Your task to perform on an android device: How big is the sun? Image 0: 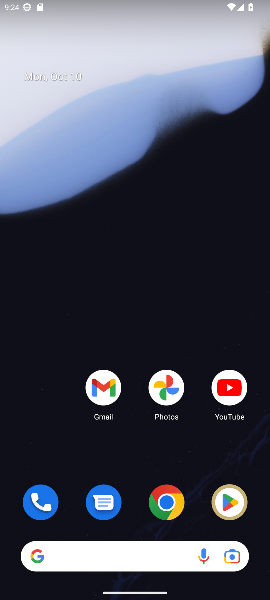
Step 0: click (170, 505)
Your task to perform on an android device: How big is the sun? Image 1: 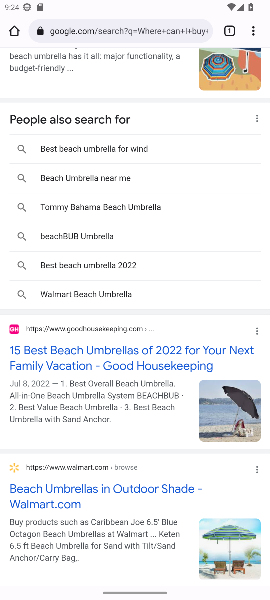
Step 1: click (98, 35)
Your task to perform on an android device: How big is the sun? Image 2: 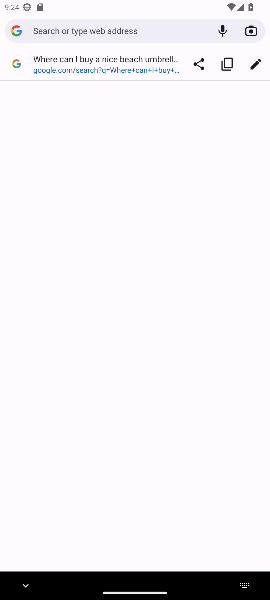
Step 2: type "How big is the sun?"
Your task to perform on an android device: How big is the sun? Image 3: 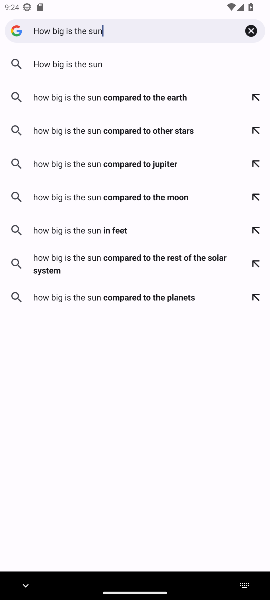
Step 3: type ""
Your task to perform on an android device: How big is the sun? Image 4: 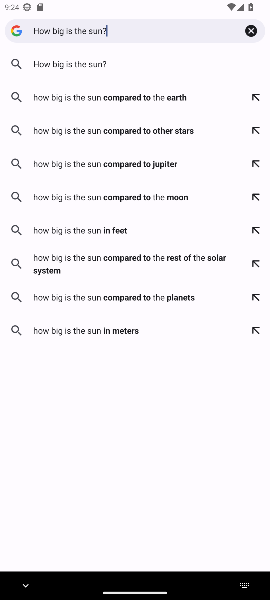
Step 4: press enter
Your task to perform on an android device: How big is the sun? Image 5: 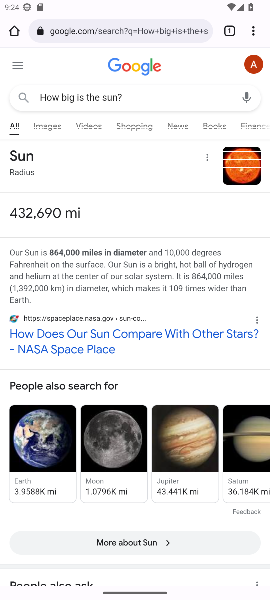
Step 5: click (94, 340)
Your task to perform on an android device: How big is the sun? Image 6: 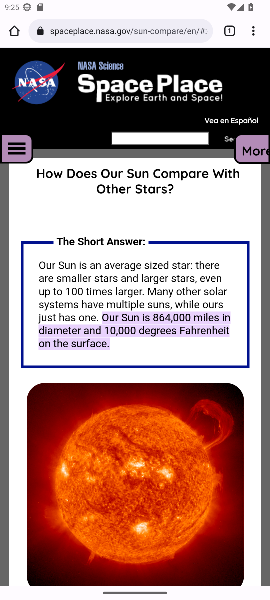
Step 6: drag from (95, 340) to (85, 185)
Your task to perform on an android device: How big is the sun? Image 7: 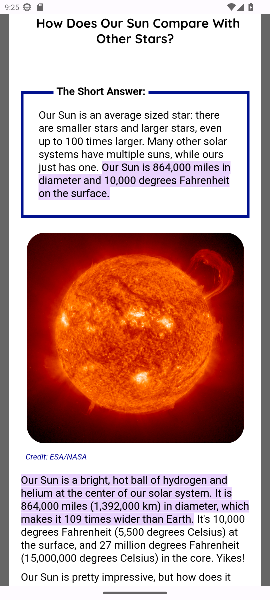
Step 7: drag from (116, 436) to (142, 90)
Your task to perform on an android device: How big is the sun? Image 8: 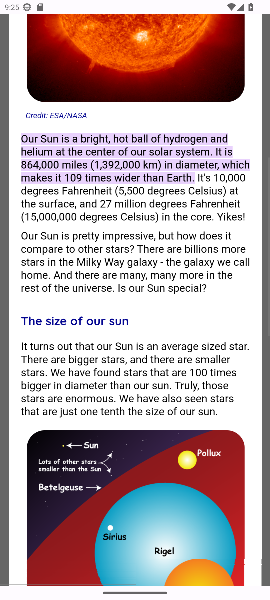
Step 8: drag from (153, 422) to (151, 146)
Your task to perform on an android device: How big is the sun? Image 9: 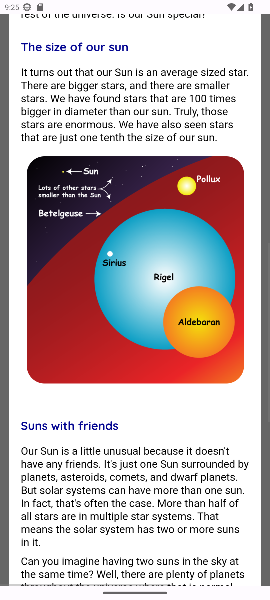
Step 9: drag from (186, 458) to (167, 171)
Your task to perform on an android device: How big is the sun? Image 10: 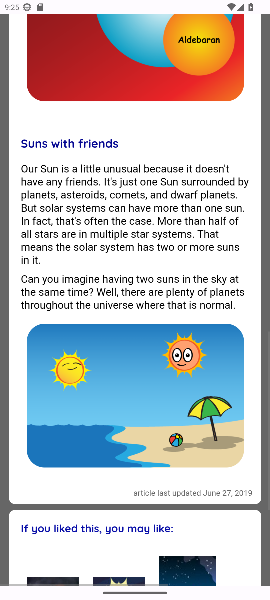
Step 10: drag from (149, 431) to (156, 163)
Your task to perform on an android device: How big is the sun? Image 11: 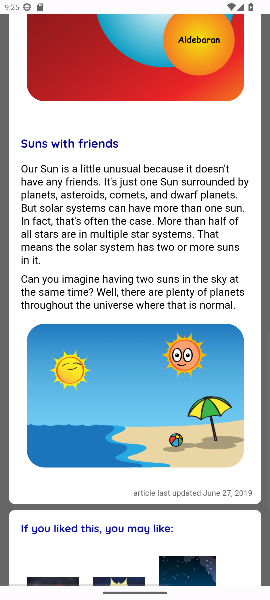
Step 11: drag from (148, 184) to (156, 218)
Your task to perform on an android device: How big is the sun? Image 12: 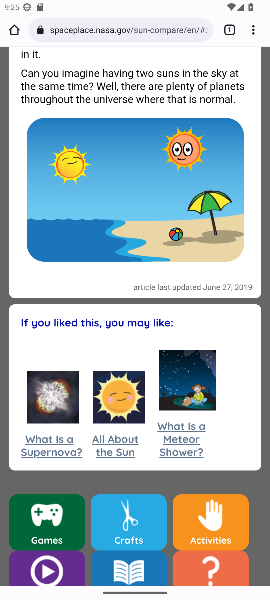
Step 12: drag from (144, 396) to (150, 242)
Your task to perform on an android device: How big is the sun? Image 13: 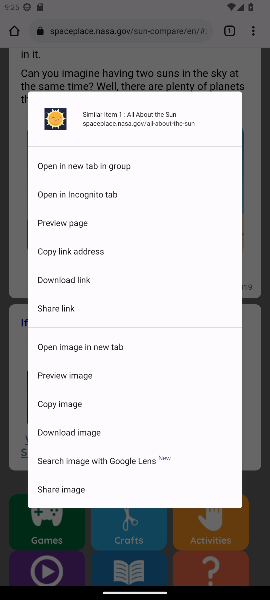
Step 13: drag from (165, 396) to (163, 262)
Your task to perform on an android device: How big is the sun? Image 14: 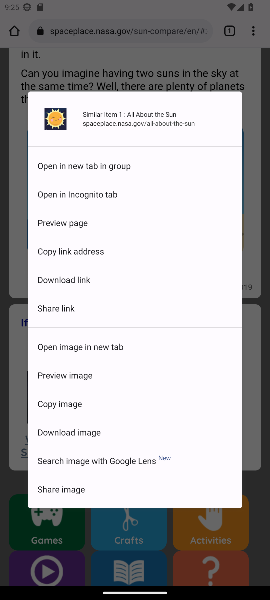
Step 14: click (163, 265)
Your task to perform on an android device: How big is the sun? Image 15: 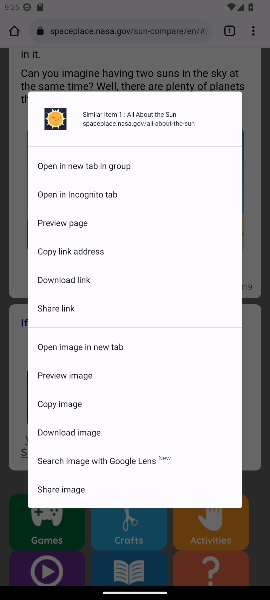
Step 15: drag from (162, 397) to (183, 259)
Your task to perform on an android device: How big is the sun? Image 16: 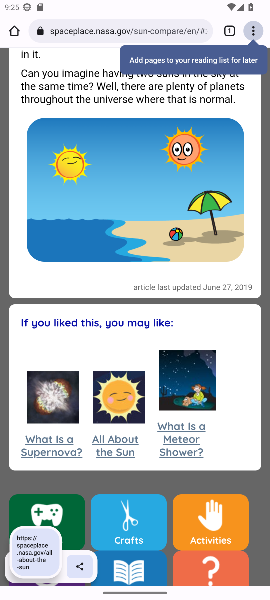
Step 16: drag from (202, 466) to (209, 249)
Your task to perform on an android device: How big is the sun? Image 17: 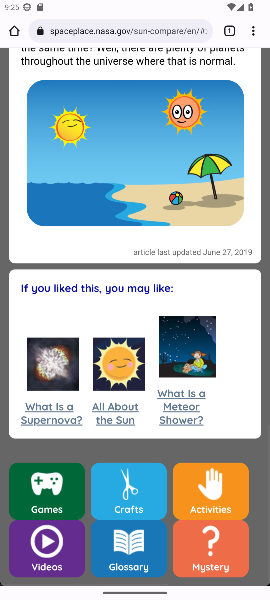
Step 17: drag from (198, 466) to (225, 269)
Your task to perform on an android device: How big is the sun? Image 18: 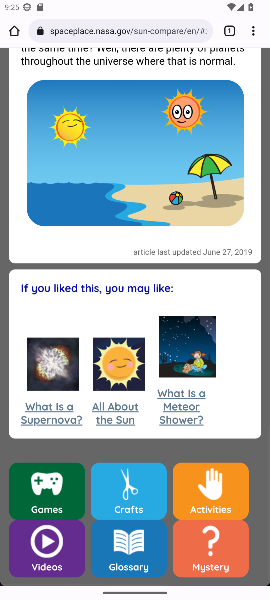
Step 18: drag from (233, 448) to (246, 304)
Your task to perform on an android device: How big is the sun? Image 19: 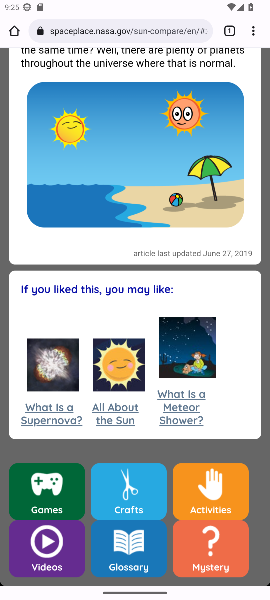
Step 19: drag from (235, 466) to (263, 293)
Your task to perform on an android device: How big is the sun? Image 20: 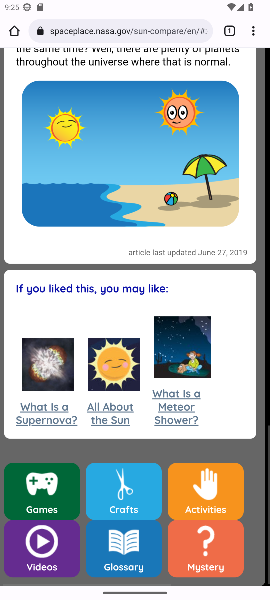
Step 20: drag from (157, 505) to (180, 310)
Your task to perform on an android device: How big is the sun? Image 21: 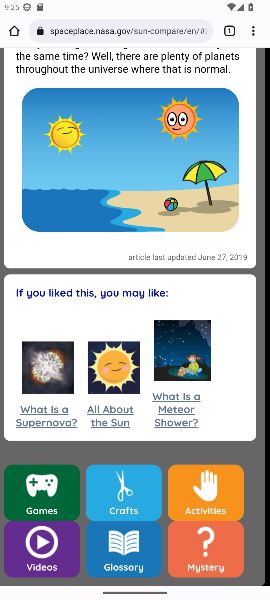
Step 21: drag from (193, 270) to (174, 411)
Your task to perform on an android device: How big is the sun? Image 22: 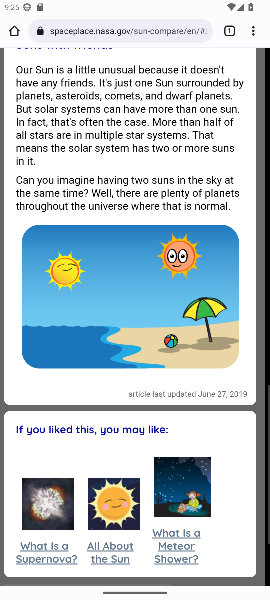
Step 22: drag from (188, 265) to (172, 424)
Your task to perform on an android device: How big is the sun? Image 23: 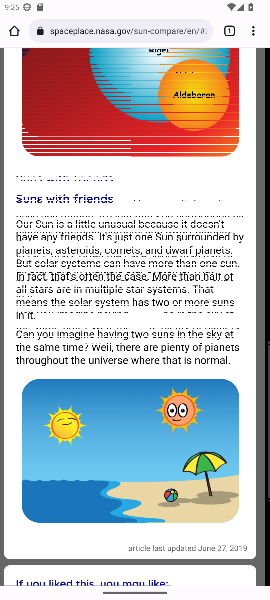
Step 23: drag from (186, 258) to (151, 444)
Your task to perform on an android device: How big is the sun? Image 24: 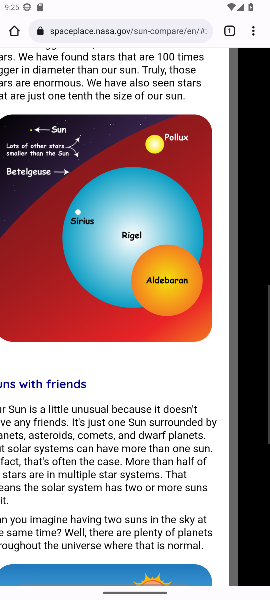
Step 24: drag from (170, 246) to (114, 486)
Your task to perform on an android device: How big is the sun? Image 25: 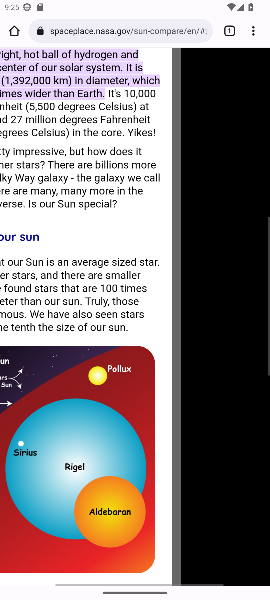
Step 25: drag from (115, 300) to (113, 529)
Your task to perform on an android device: How big is the sun? Image 26: 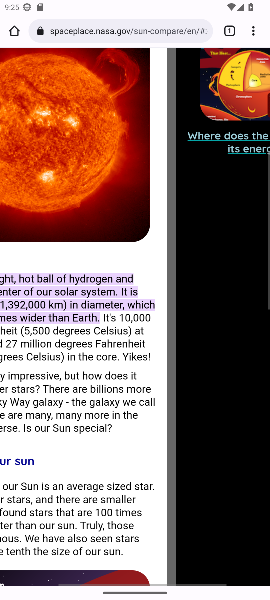
Step 26: drag from (153, 332) to (148, 497)
Your task to perform on an android device: How big is the sun? Image 27: 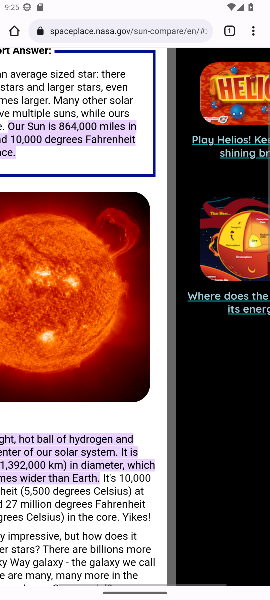
Step 27: drag from (188, 343) to (173, 510)
Your task to perform on an android device: How big is the sun? Image 28: 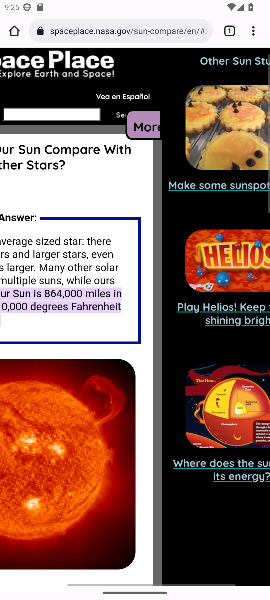
Step 28: drag from (197, 354) to (199, 511)
Your task to perform on an android device: How big is the sun? Image 29: 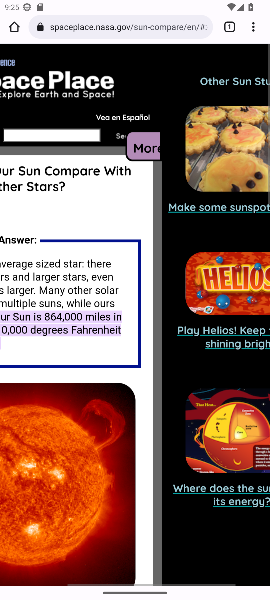
Step 29: drag from (170, 439) to (158, 506)
Your task to perform on an android device: How big is the sun? Image 30: 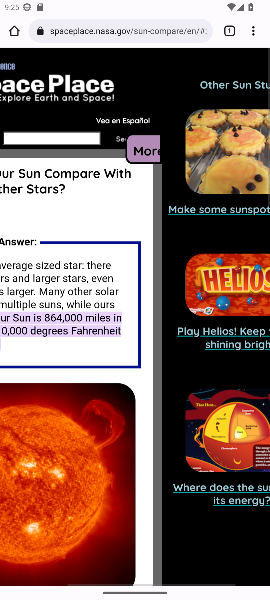
Step 30: drag from (85, 377) to (267, 368)
Your task to perform on an android device: How big is the sun? Image 31: 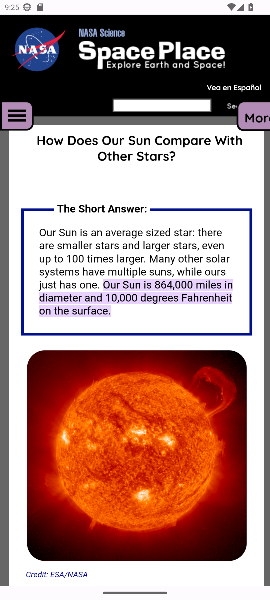
Step 31: drag from (119, 183) to (193, 147)
Your task to perform on an android device: How big is the sun? Image 32: 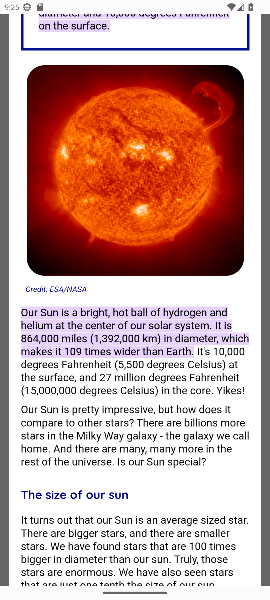
Step 32: drag from (184, 360) to (214, 170)
Your task to perform on an android device: How big is the sun? Image 33: 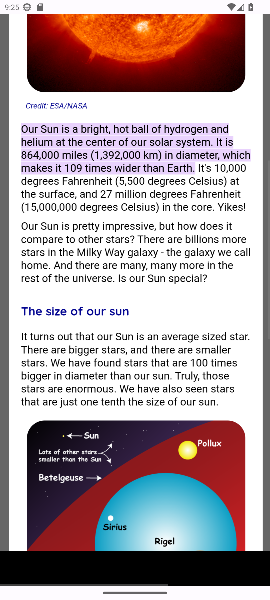
Step 33: drag from (147, 436) to (179, 212)
Your task to perform on an android device: How big is the sun? Image 34: 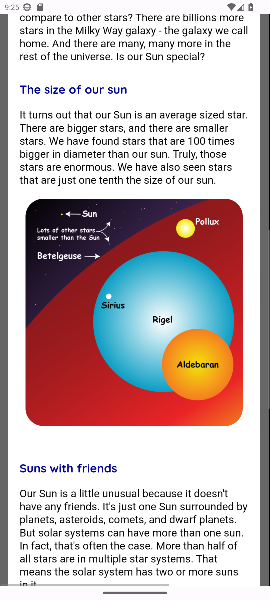
Step 34: drag from (140, 480) to (164, 256)
Your task to perform on an android device: How big is the sun? Image 35: 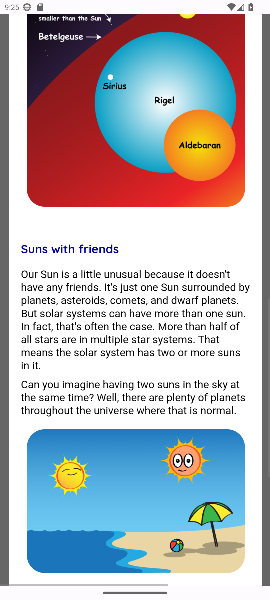
Step 35: drag from (146, 498) to (173, 297)
Your task to perform on an android device: How big is the sun? Image 36: 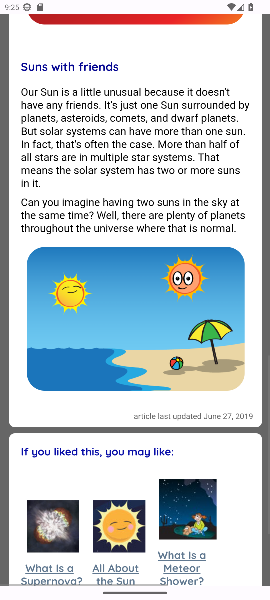
Step 36: drag from (141, 500) to (163, 321)
Your task to perform on an android device: How big is the sun? Image 37: 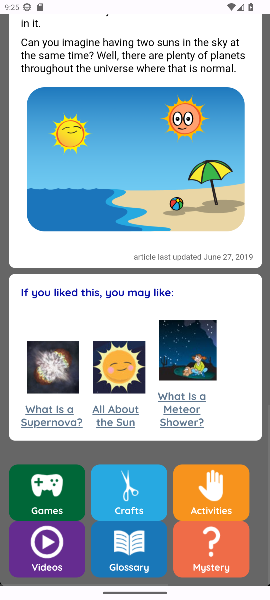
Step 37: drag from (122, 474) to (149, 317)
Your task to perform on an android device: How big is the sun? Image 38: 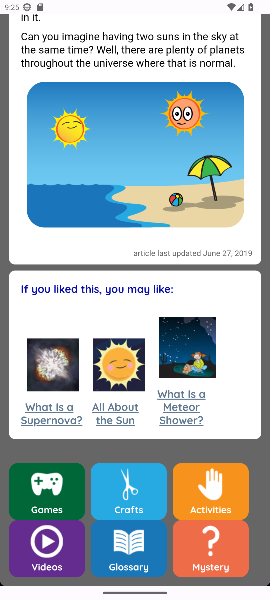
Step 38: drag from (134, 486) to (161, 368)
Your task to perform on an android device: How big is the sun? Image 39: 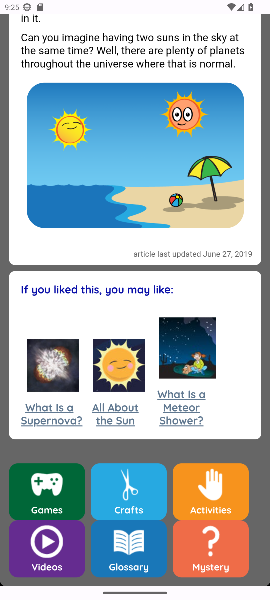
Step 39: drag from (125, 556) to (149, 385)
Your task to perform on an android device: How big is the sun? Image 40: 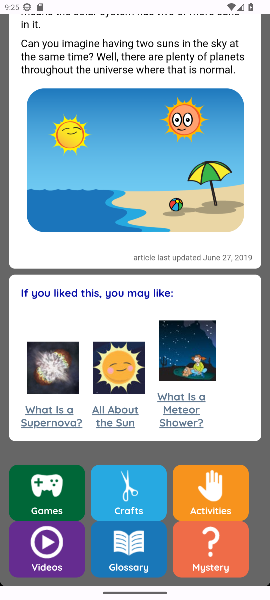
Step 40: drag from (84, 581) to (125, 431)
Your task to perform on an android device: How big is the sun? Image 41: 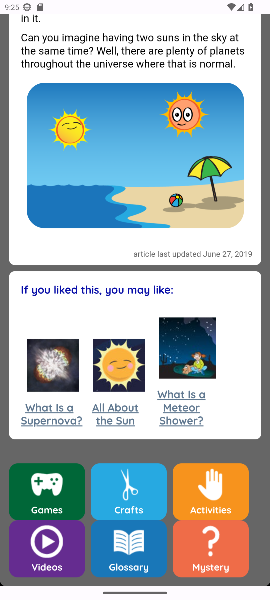
Step 41: drag from (121, 415) to (123, 274)
Your task to perform on an android device: How big is the sun? Image 42: 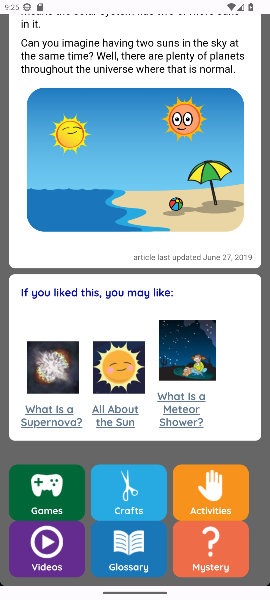
Step 42: press back button
Your task to perform on an android device: How big is the sun? Image 43: 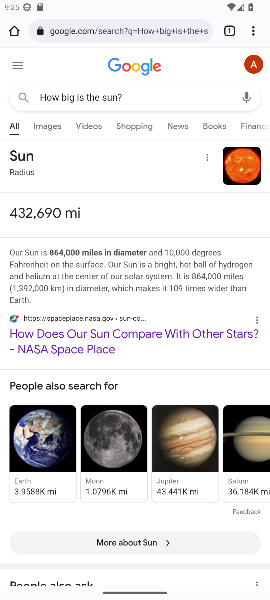
Step 43: drag from (121, 519) to (127, 49)
Your task to perform on an android device: How big is the sun? Image 44: 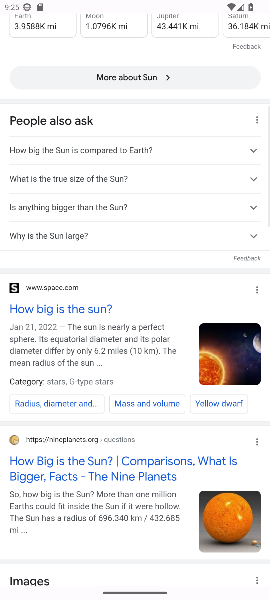
Step 44: drag from (110, 554) to (123, 107)
Your task to perform on an android device: How big is the sun? Image 45: 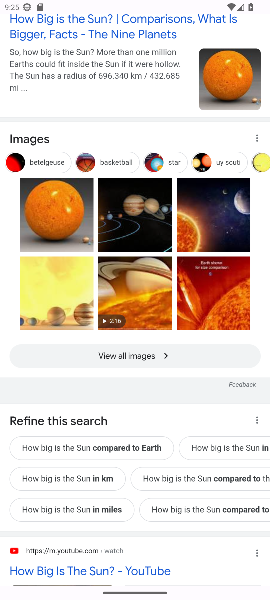
Step 45: click (77, 22)
Your task to perform on an android device: How big is the sun? Image 46: 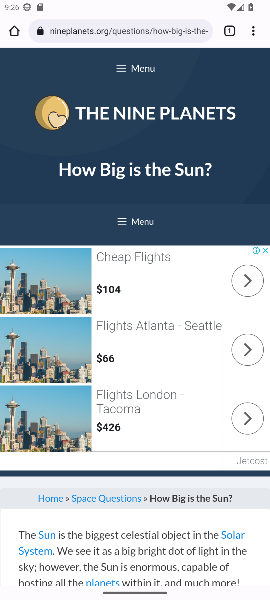
Step 46: drag from (108, 442) to (136, 101)
Your task to perform on an android device: How big is the sun? Image 47: 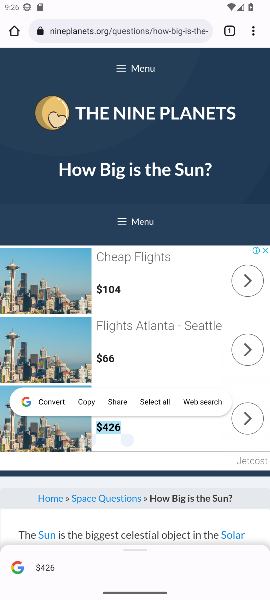
Step 47: drag from (162, 456) to (141, 189)
Your task to perform on an android device: How big is the sun? Image 48: 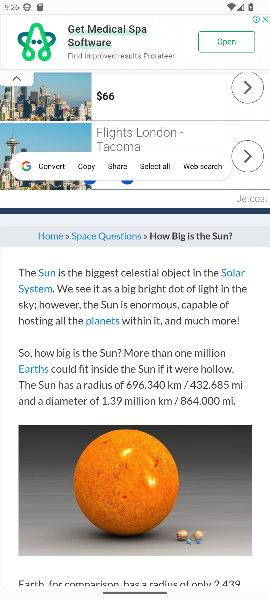
Step 48: drag from (168, 534) to (147, 217)
Your task to perform on an android device: How big is the sun? Image 49: 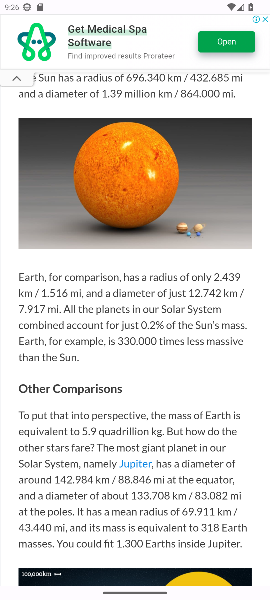
Step 49: drag from (92, 510) to (97, 143)
Your task to perform on an android device: How big is the sun? Image 50: 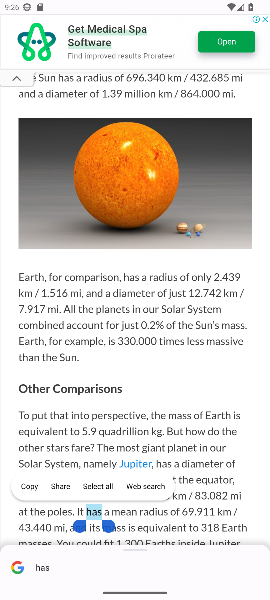
Step 50: drag from (169, 393) to (148, 139)
Your task to perform on an android device: How big is the sun? Image 51: 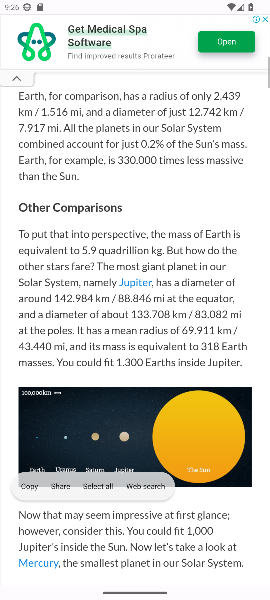
Step 51: drag from (194, 456) to (175, 156)
Your task to perform on an android device: How big is the sun? Image 52: 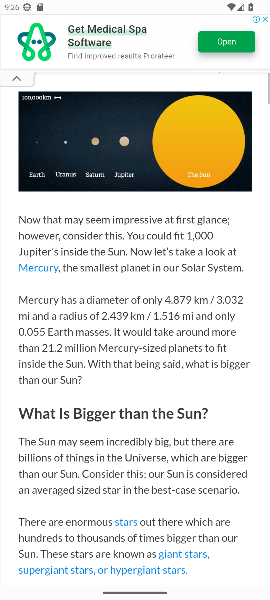
Step 52: drag from (185, 409) to (145, 127)
Your task to perform on an android device: How big is the sun? Image 53: 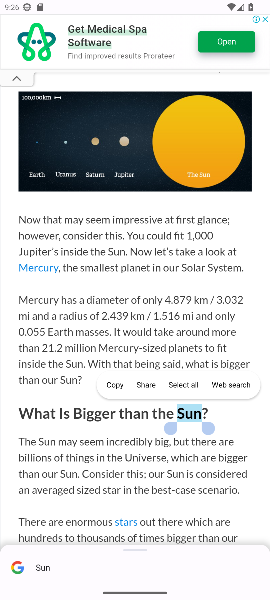
Step 53: drag from (153, 422) to (164, 171)
Your task to perform on an android device: How big is the sun? Image 54: 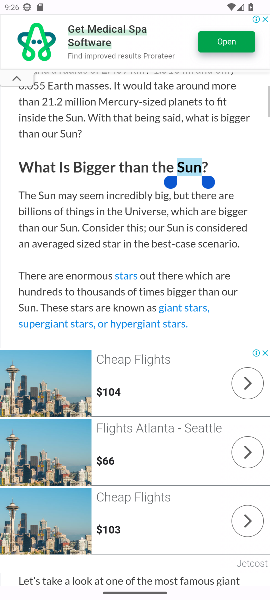
Step 54: drag from (156, 422) to (168, 229)
Your task to perform on an android device: How big is the sun? Image 55: 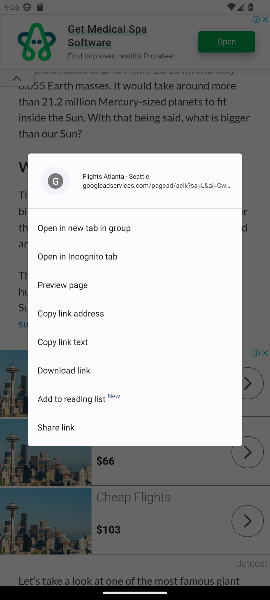
Step 55: click (175, 78)
Your task to perform on an android device: How big is the sun? Image 56: 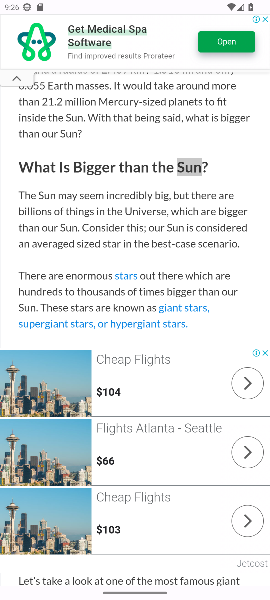
Step 56: drag from (138, 439) to (154, 129)
Your task to perform on an android device: How big is the sun? Image 57: 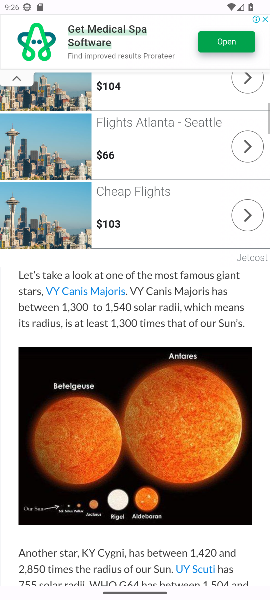
Step 57: drag from (152, 290) to (149, 148)
Your task to perform on an android device: How big is the sun? Image 58: 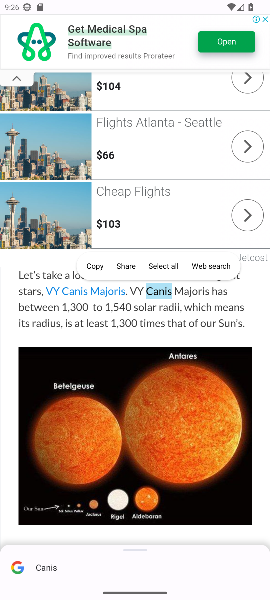
Step 58: drag from (129, 391) to (133, 208)
Your task to perform on an android device: How big is the sun? Image 59: 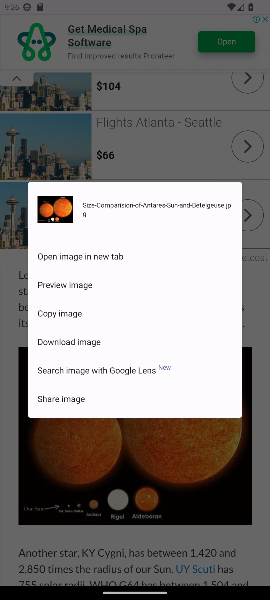
Step 59: press back button
Your task to perform on an android device: How big is the sun? Image 60: 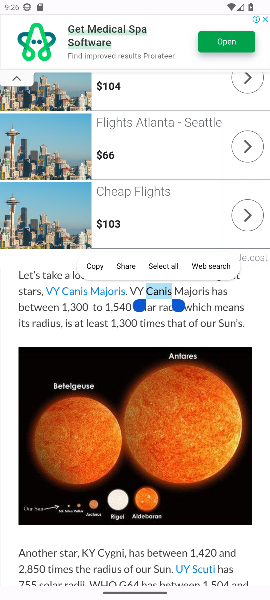
Step 60: press back button
Your task to perform on an android device: How big is the sun? Image 61: 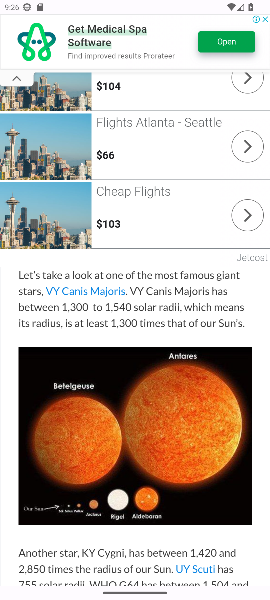
Step 61: press back button
Your task to perform on an android device: How big is the sun? Image 62: 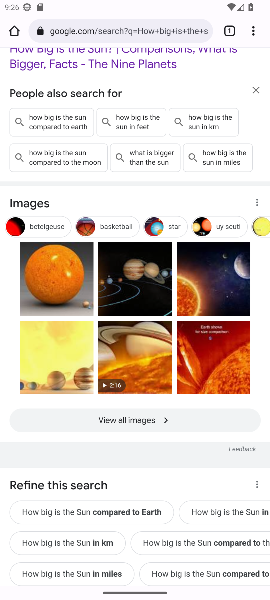
Step 62: drag from (153, 92) to (128, 445)
Your task to perform on an android device: How big is the sun? Image 63: 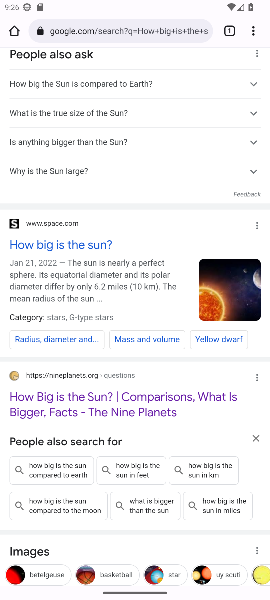
Step 63: drag from (122, 164) to (141, 400)
Your task to perform on an android device: How big is the sun? Image 64: 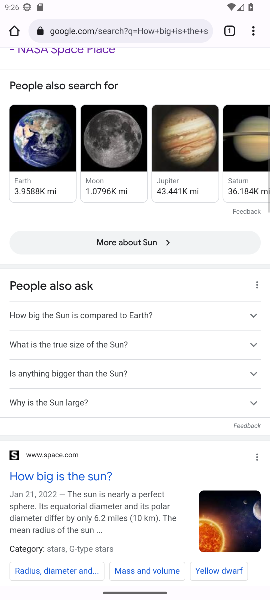
Step 64: click (57, 242)
Your task to perform on an android device: How big is the sun? Image 65: 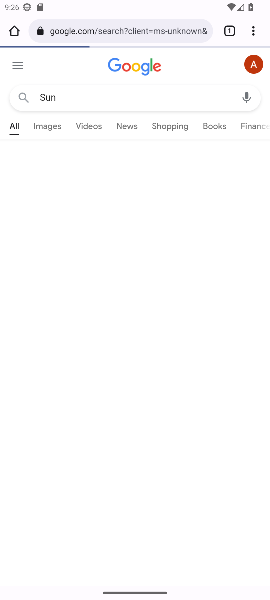
Step 65: click (22, 478)
Your task to perform on an android device: How big is the sun? Image 66: 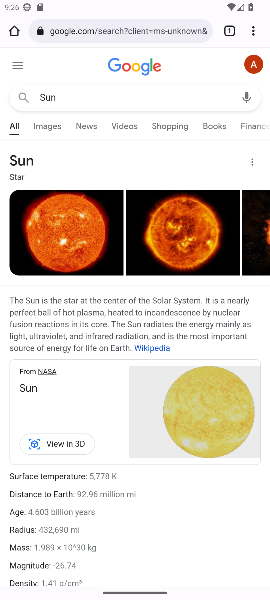
Step 66: drag from (95, 492) to (50, 232)
Your task to perform on an android device: How big is the sun? Image 67: 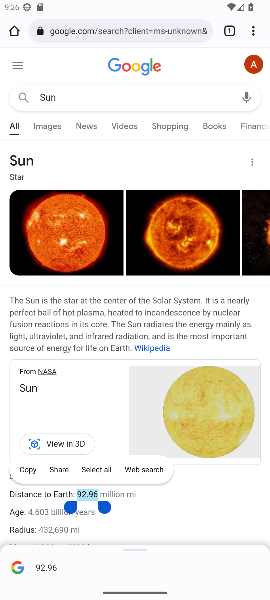
Step 67: click (111, 411)
Your task to perform on an android device: How big is the sun? Image 68: 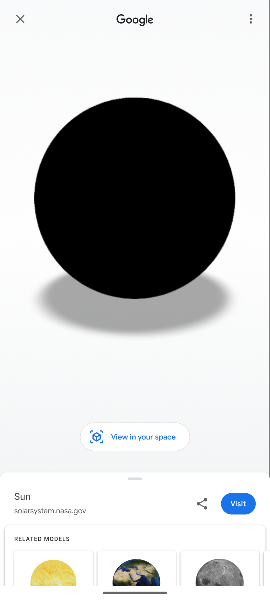
Step 68: task complete